Your task to perform on an android device: Is it going to rain tomorrow? Image 0: 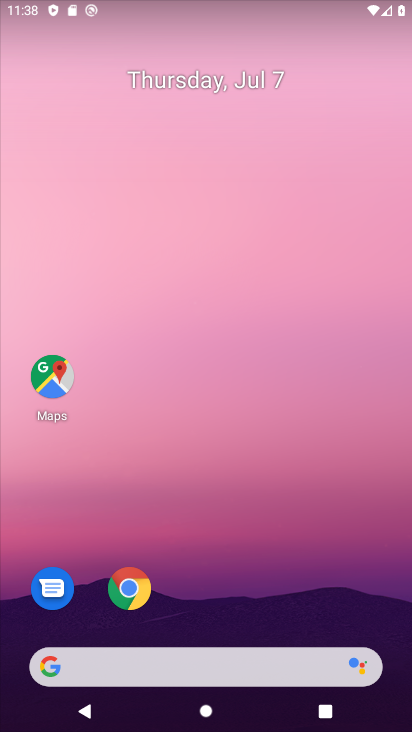
Step 0: drag from (222, 642) to (277, 228)
Your task to perform on an android device: Is it going to rain tomorrow? Image 1: 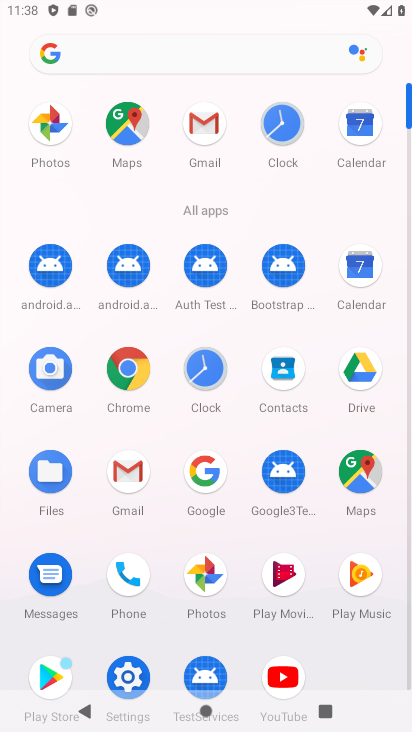
Step 1: click (211, 458)
Your task to perform on an android device: Is it going to rain tomorrow? Image 2: 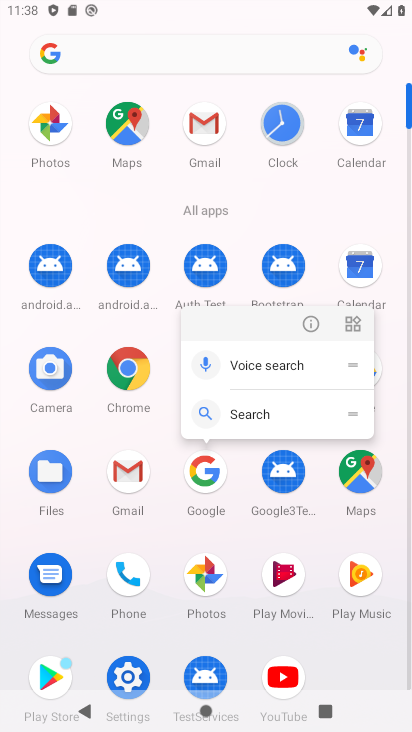
Step 2: click (204, 474)
Your task to perform on an android device: Is it going to rain tomorrow? Image 3: 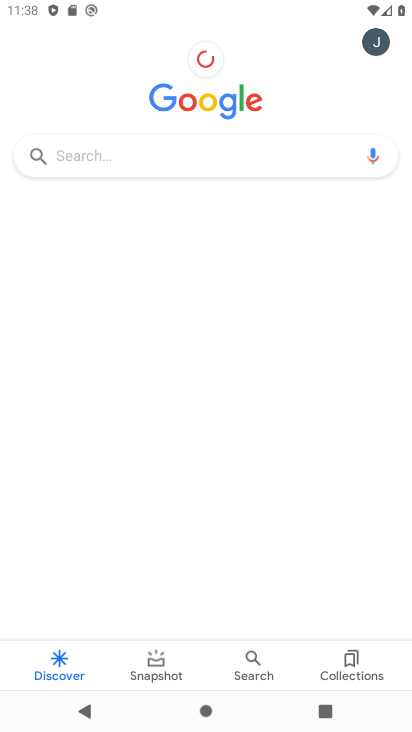
Step 3: click (169, 155)
Your task to perform on an android device: Is it going to rain tomorrow? Image 4: 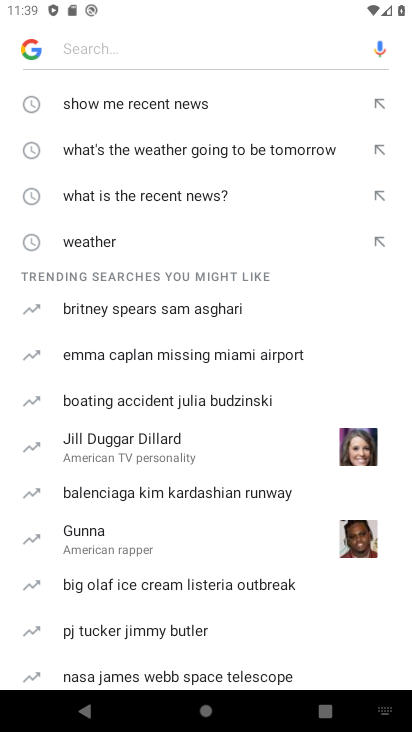
Step 4: type "is it going to rain tomorrow?"
Your task to perform on an android device: Is it going to rain tomorrow? Image 5: 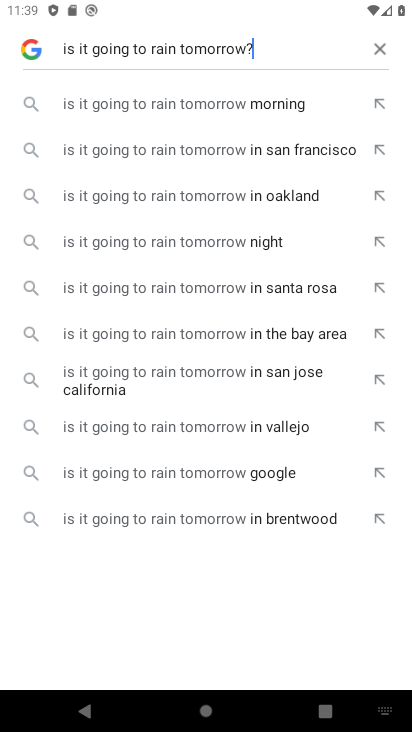
Step 5: click (99, 104)
Your task to perform on an android device: Is it going to rain tomorrow? Image 6: 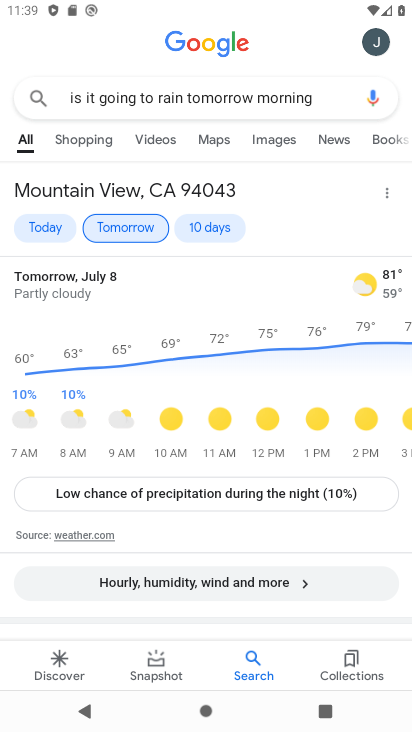
Step 6: task complete